Your task to perform on an android device: empty trash in the gmail app Image 0: 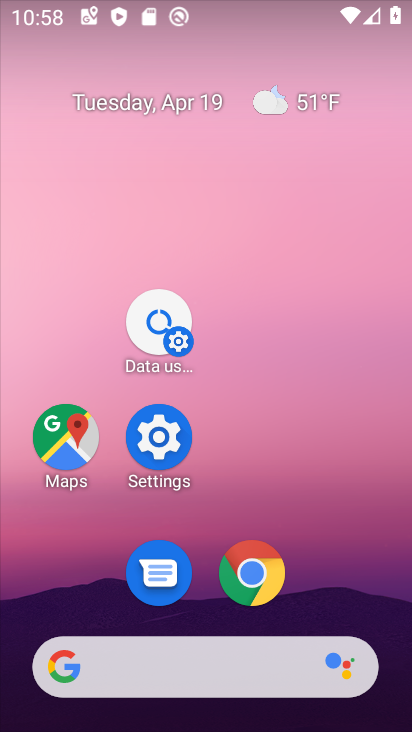
Step 0: drag from (374, 524) to (366, 10)
Your task to perform on an android device: empty trash in the gmail app Image 1: 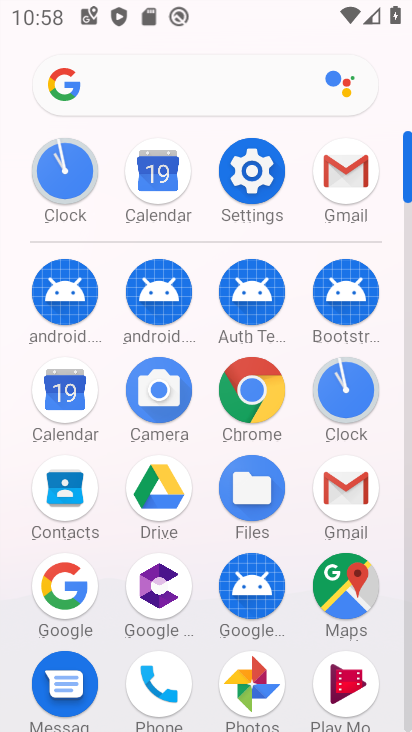
Step 1: click (343, 173)
Your task to perform on an android device: empty trash in the gmail app Image 2: 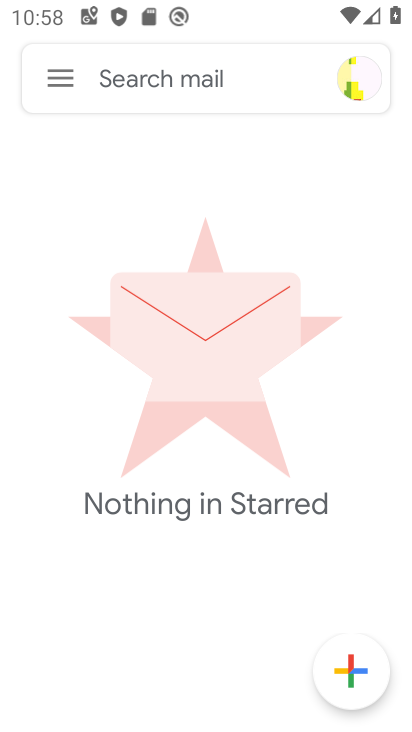
Step 2: click (64, 82)
Your task to perform on an android device: empty trash in the gmail app Image 3: 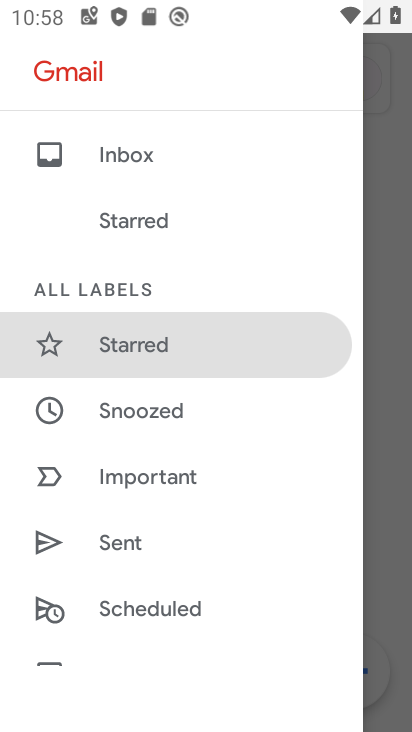
Step 3: drag from (237, 615) to (239, 229)
Your task to perform on an android device: empty trash in the gmail app Image 4: 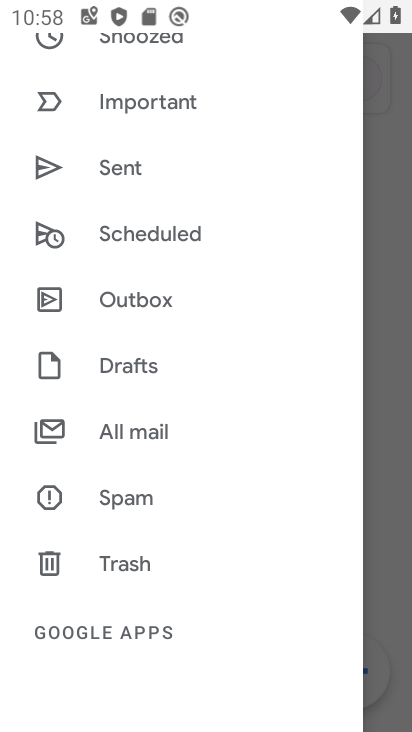
Step 4: click (110, 563)
Your task to perform on an android device: empty trash in the gmail app Image 5: 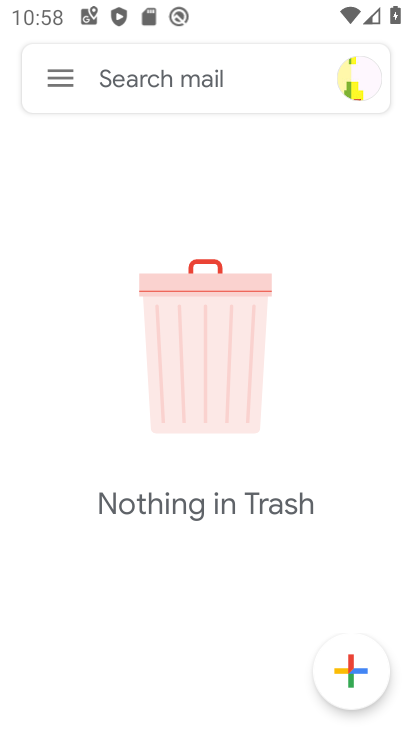
Step 5: task complete